Your task to perform on an android device: open a bookmark in the chrome app Image 0: 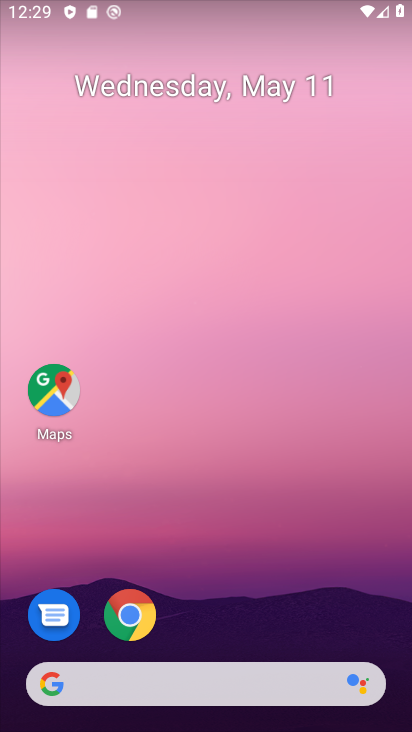
Step 0: click (129, 614)
Your task to perform on an android device: open a bookmark in the chrome app Image 1: 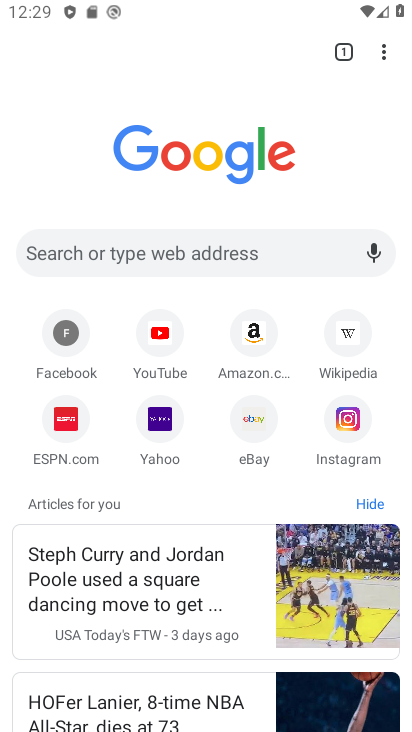
Step 1: click (379, 64)
Your task to perform on an android device: open a bookmark in the chrome app Image 2: 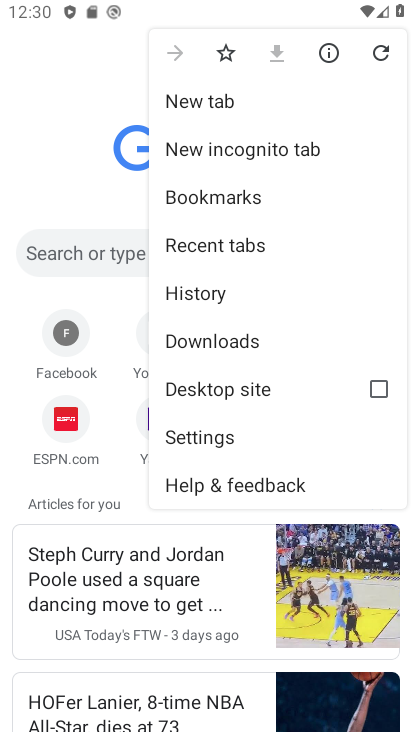
Step 2: click (226, 187)
Your task to perform on an android device: open a bookmark in the chrome app Image 3: 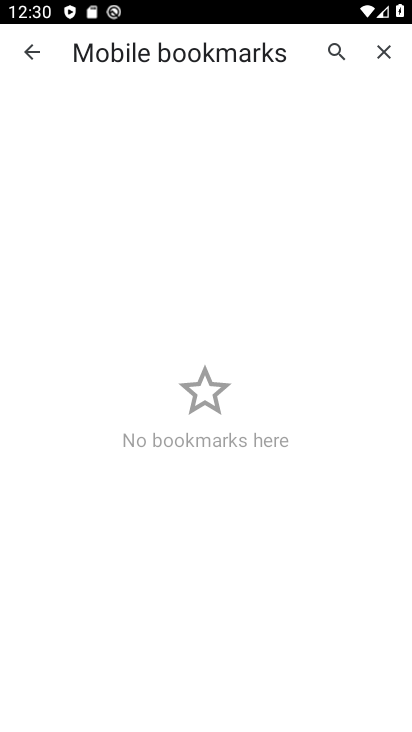
Step 3: task complete